Your task to perform on an android device: Go to ESPN.com Image 0: 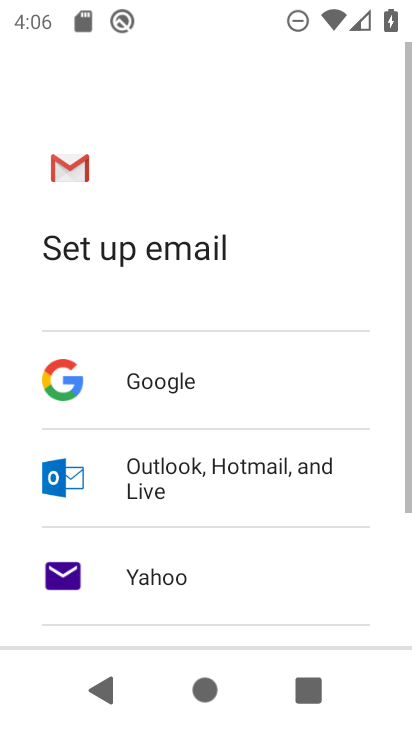
Step 0: drag from (290, 511) to (322, 130)
Your task to perform on an android device: Go to ESPN.com Image 1: 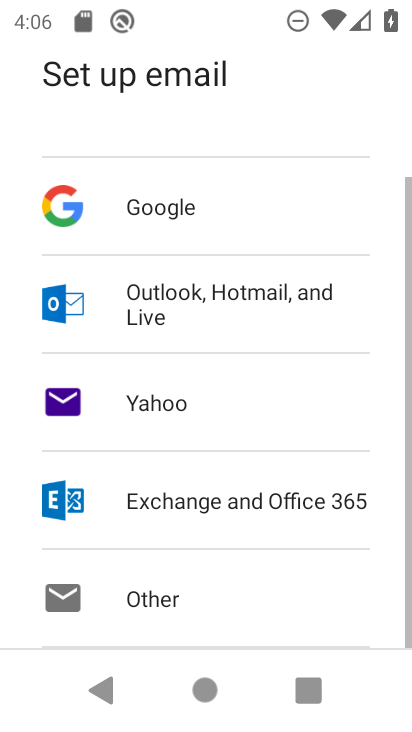
Step 1: press home button
Your task to perform on an android device: Go to ESPN.com Image 2: 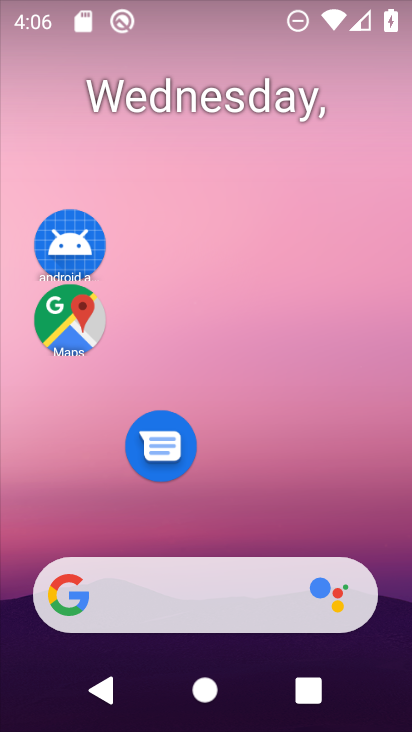
Step 2: drag from (250, 516) to (275, 116)
Your task to perform on an android device: Go to ESPN.com Image 3: 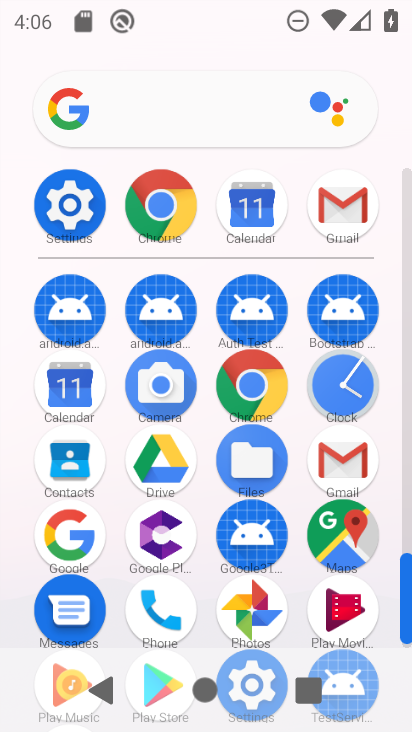
Step 3: click (159, 212)
Your task to perform on an android device: Go to ESPN.com Image 4: 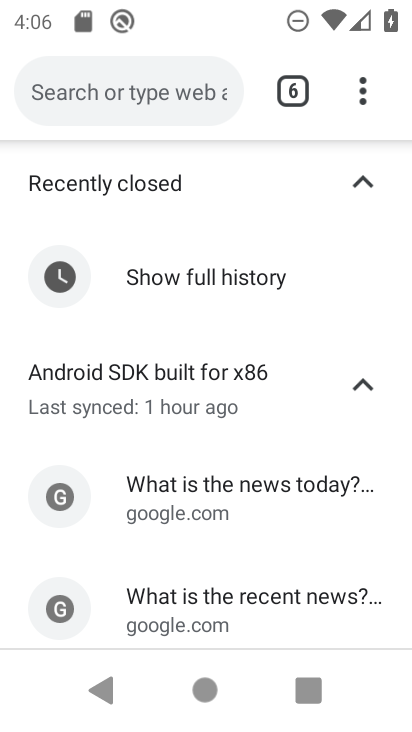
Step 4: click (212, 109)
Your task to perform on an android device: Go to ESPN.com Image 5: 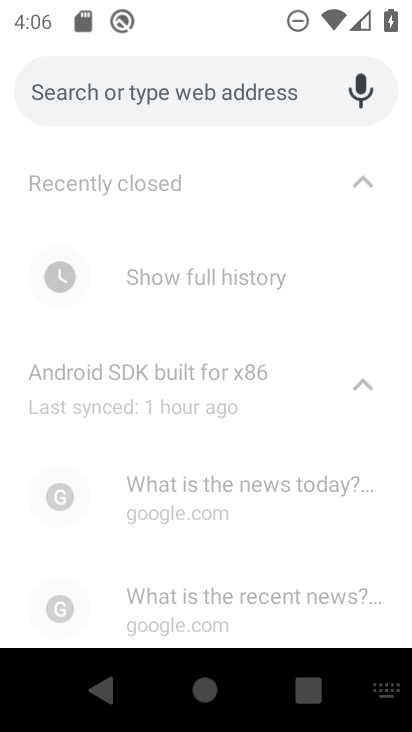
Step 5: type "espn"
Your task to perform on an android device: Go to ESPN.com Image 6: 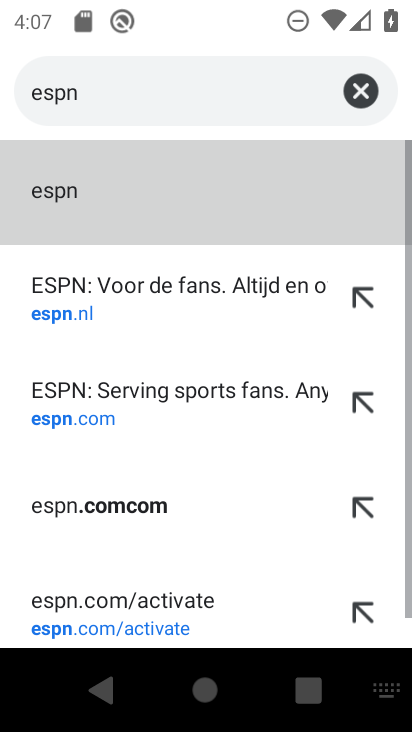
Step 6: click (134, 275)
Your task to perform on an android device: Go to ESPN.com Image 7: 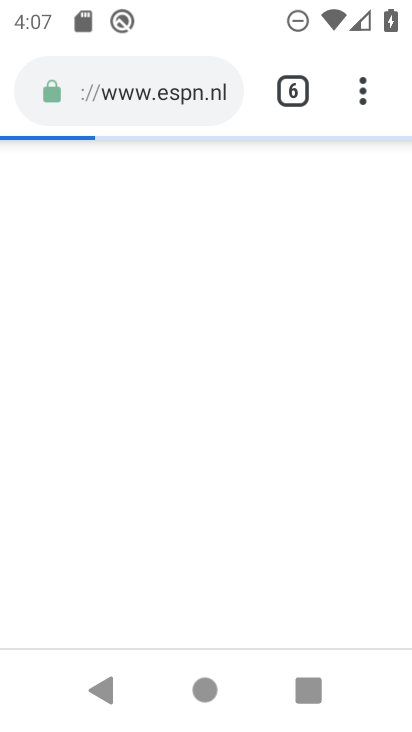
Step 7: task complete